Your task to perform on an android device: Open battery settings Image 0: 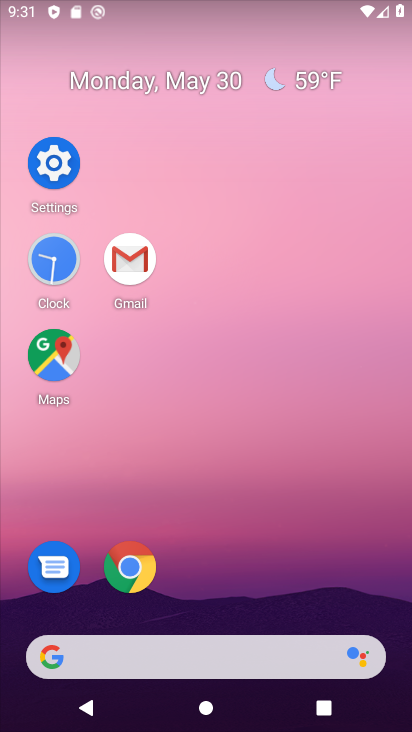
Step 0: click (60, 160)
Your task to perform on an android device: Open battery settings Image 1: 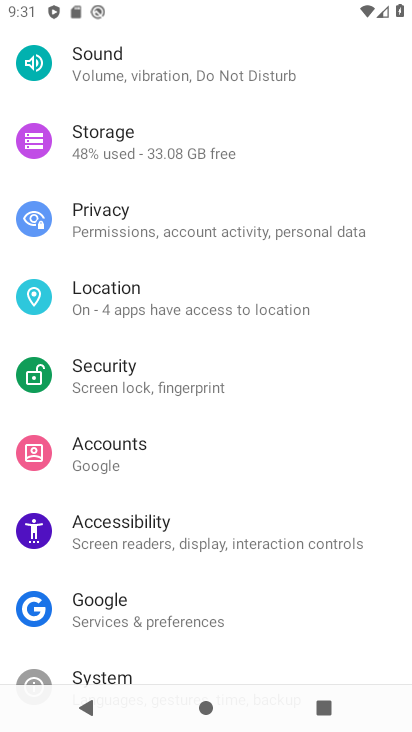
Step 1: drag from (269, 225) to (259, 632)
Your task to perform on an android device: Open battery settings Image 2: 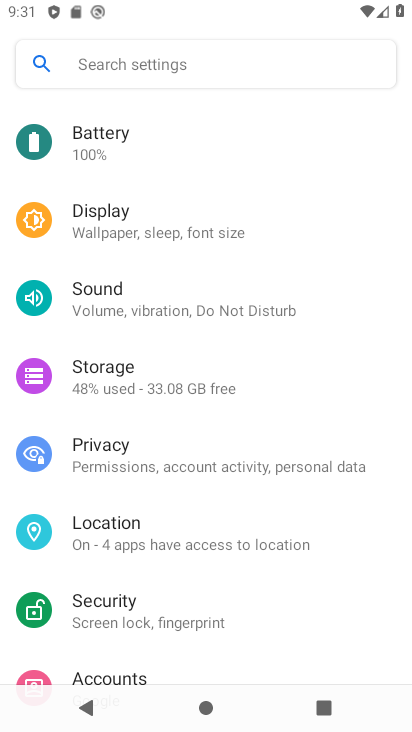
Step 2: click (175, 157)
Your task to perform on an android device: Open battery settings Image 3: 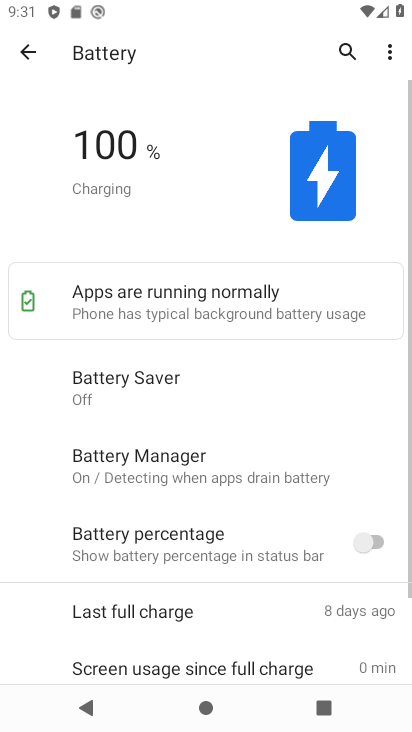
Step 3: task complete